Your task to perform on an android device: open a bookmark in the chrome app Image 0: 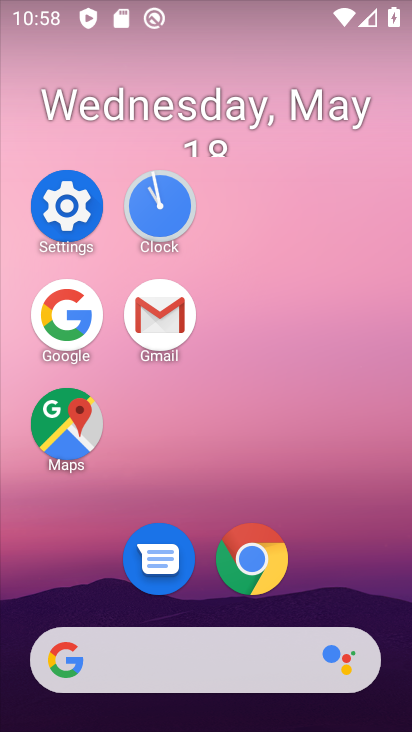
Step 0: click (262, 556)
Your task to perform on an android device: open a bookmark in the chrome app Image 1: 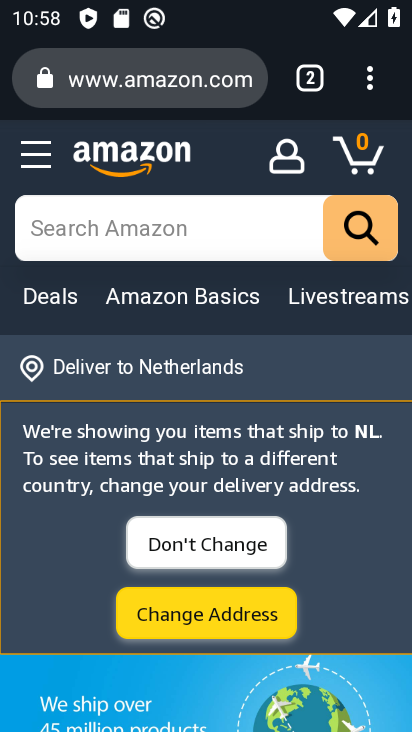
Step 1: click (370, 68)
Your task to perform on an android device: open a bookmark in the chrome app Image 2: 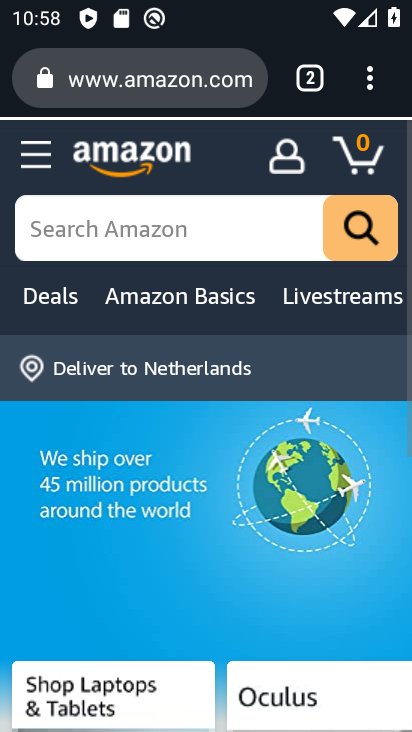
Step 2: click (381, 87)
Your task to perform on an android device: open a bookmark in the chrome app Image 3: 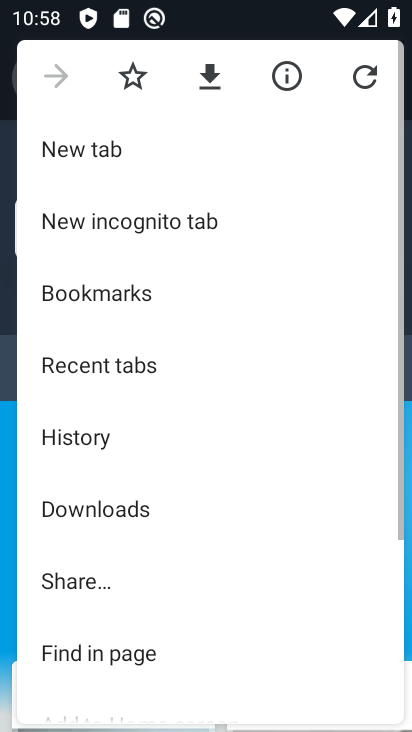
Step 3: click (138, 300)
Your task to perform on an android device: open a bookmark in the chrome app Image 4: 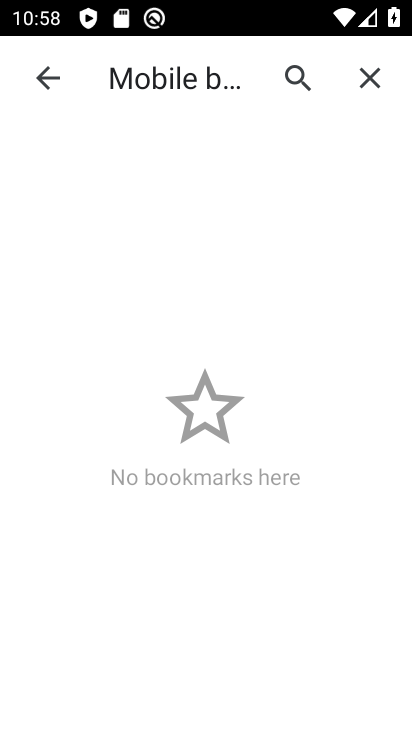
Step 4: task complete